Your task to perform on an android device: Open Yahoo.com Image 0: 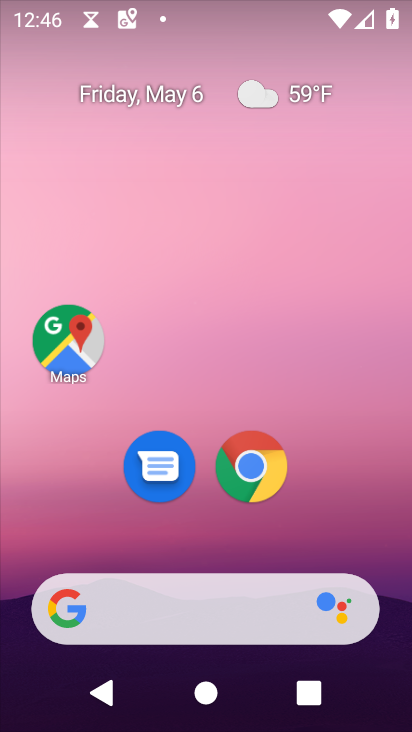
Step 0: drag from (384, 555) to (328, 117)
Your task to perform on an android device: Open Yahoo.com Image 1: 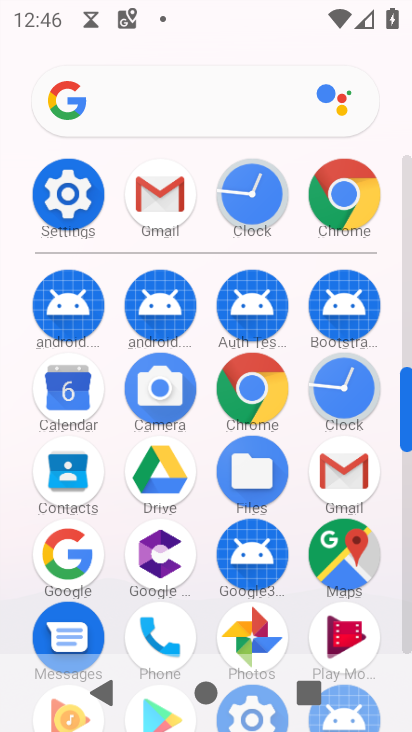
Step 1: click (352, 175)
Your task to perform on an android device: Open Yahoo.com Image 2: 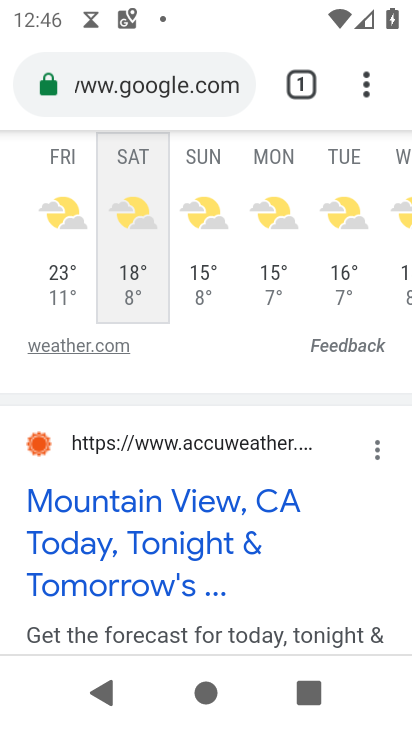
Step 2: click (134, 86)
Your task to perform on an android device: Open Yahoo.com Image 3: 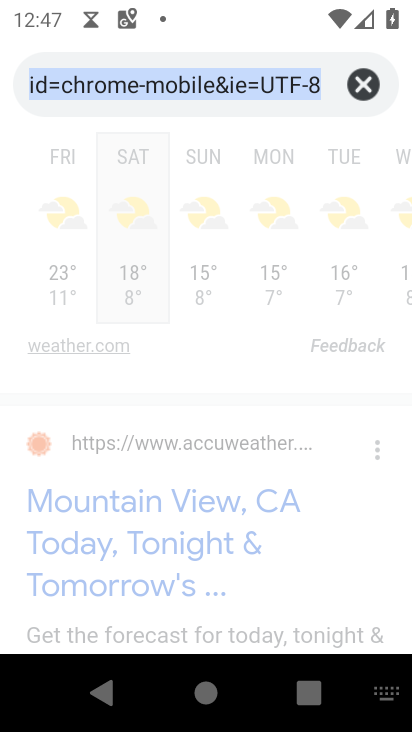
Step 3: type "yahoo.com"
Your task to perform on an android device: Open Yahoo.com Image 4: 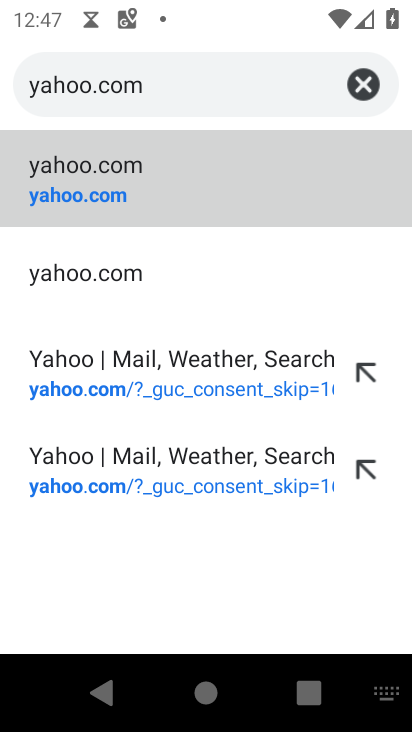
Step 4: click (58, 199)
Your task to perform on an android device: Open Yahoo.com Image 5: 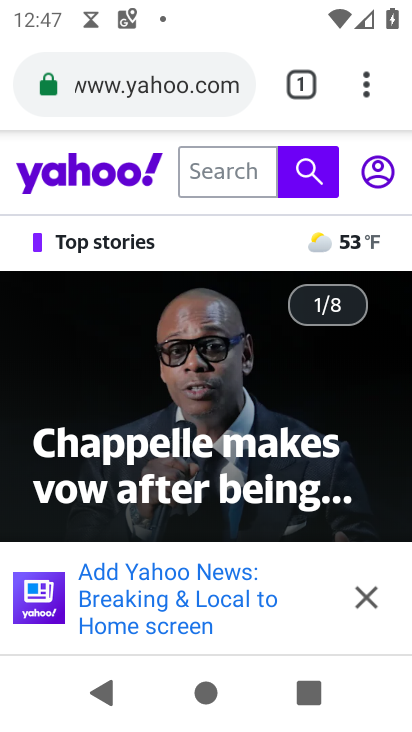
Step 5: task complete